Your task to perform on an android device: open a new tab in the chrome app Image 0: 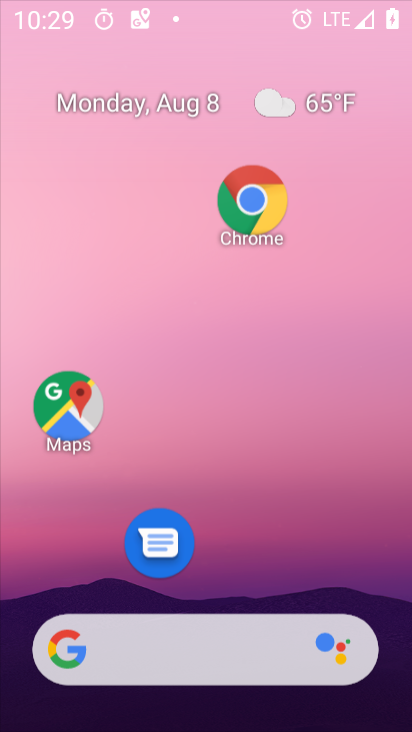
Step 0: press home button
Your task to perform on an android device: open a new tab in the chrome app Image 1: 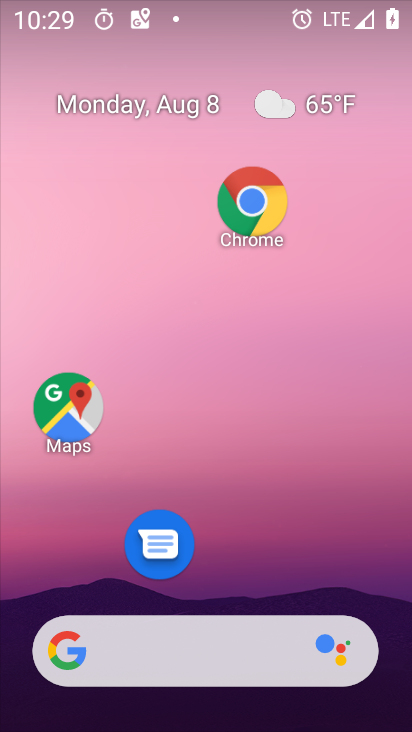
Step 1: drag from (217, 581) to (203, 44)
Your task to perform on an android device: open a new tab in the chrome app Image 2: 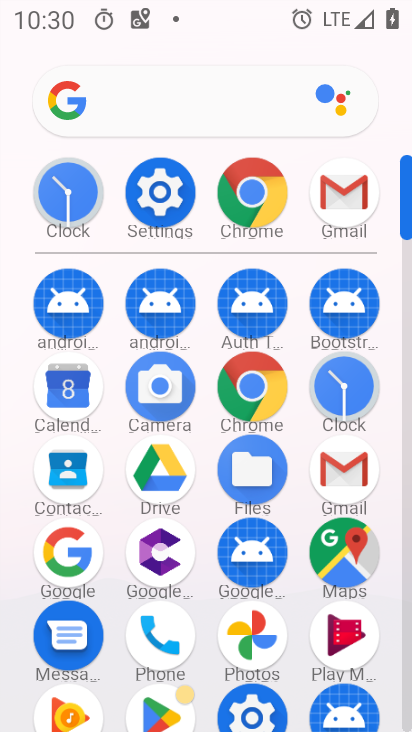
Step 2: click (248, 378)
Your task to perform on an android device: open a new tab in the chrome app Image 3: 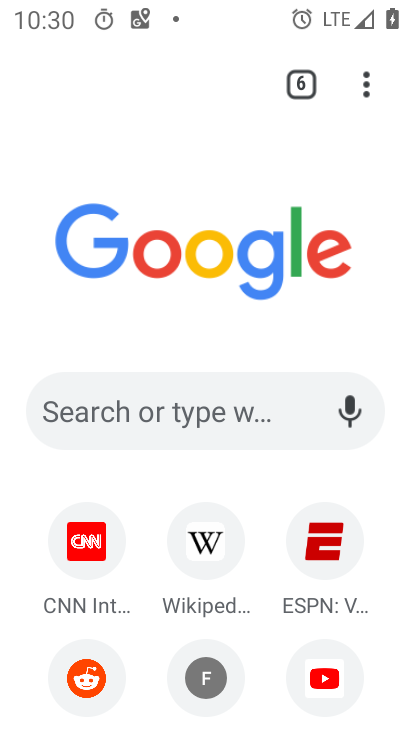
Step 3: task complete